Your task to perform on an android device: turn on improve location accuracy Image 0: 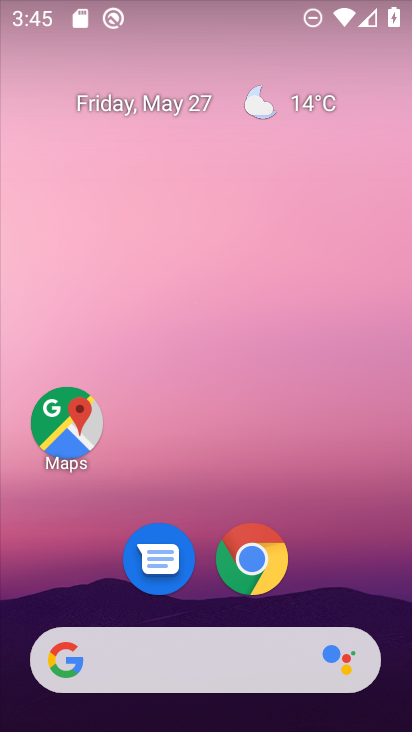
Step 0: press home button
Your task to perform on an android device: turn on improve location accuracy Image 1: 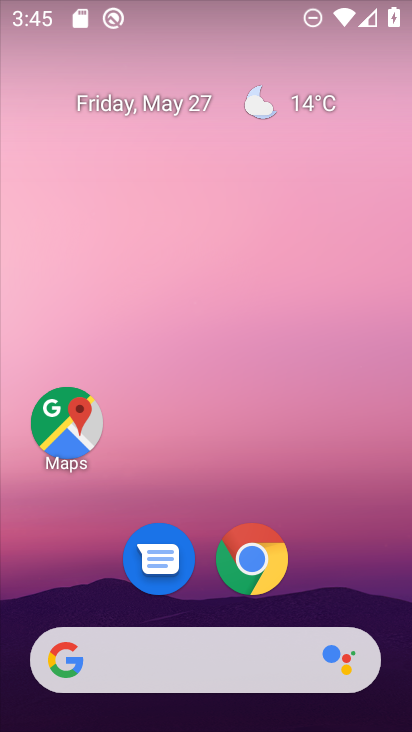
Step 1: drag from (339, 579) to (316, 52)
Your task to perform on an android device: turn on improve location accuracy Image 2: 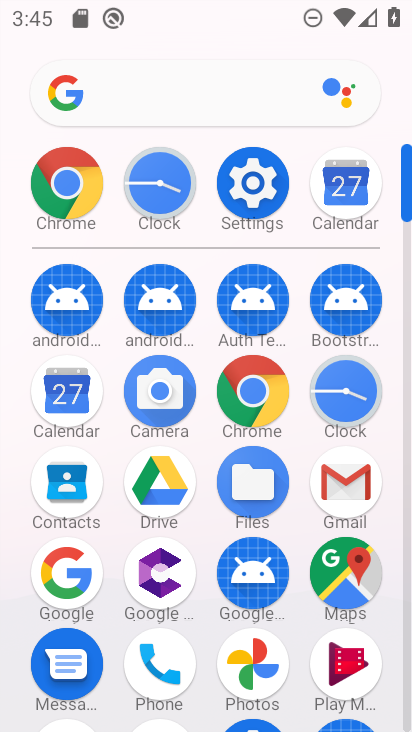
Step 2: click (239, 193)
Your task to perform on an android device: turn on improve location accuracy Image 3: 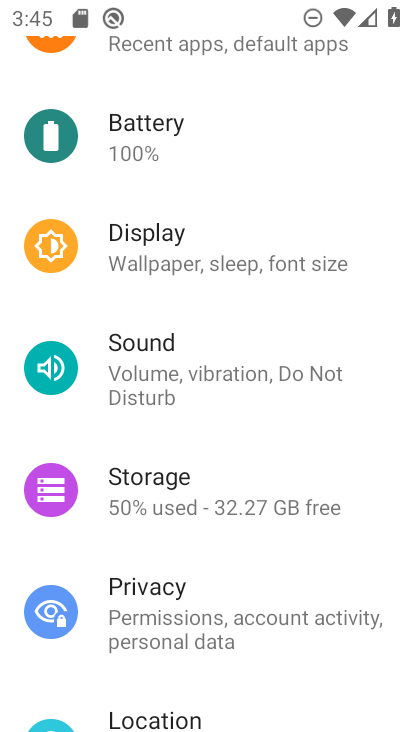
Step 3: drag from (229, 680) to (226, 304)
Your task to perform on an android device: turn on improve location accuracy Image 4: 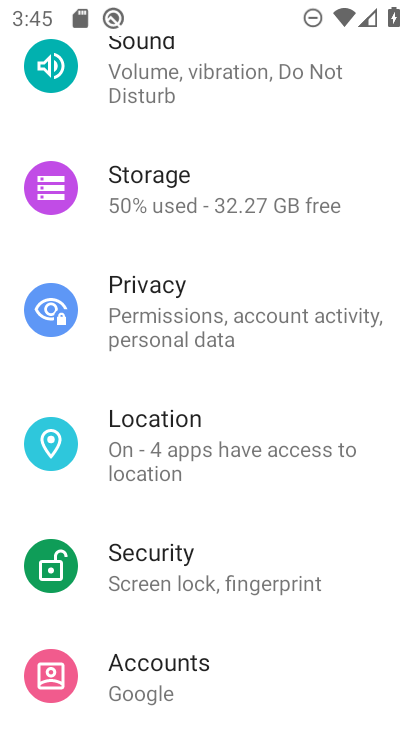
Step 4: click (211, 446)
Your task to perform on an android device: turn on improve location accuracy Image 5: 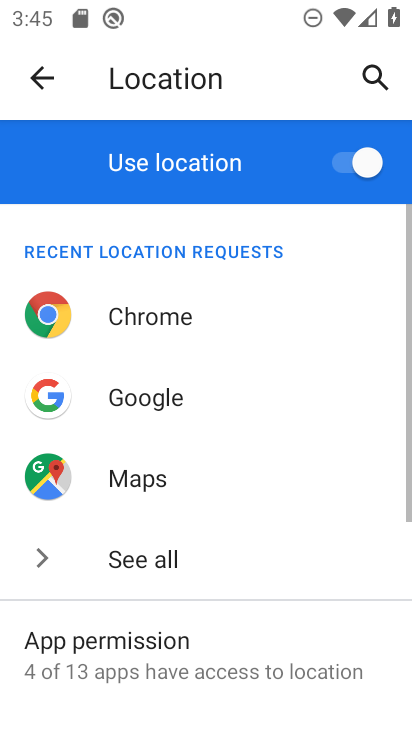
Step 5: drag from (311, 636) to (275, 320)
Your task to perform on an android device: turn on improve location accuracy Image 6: 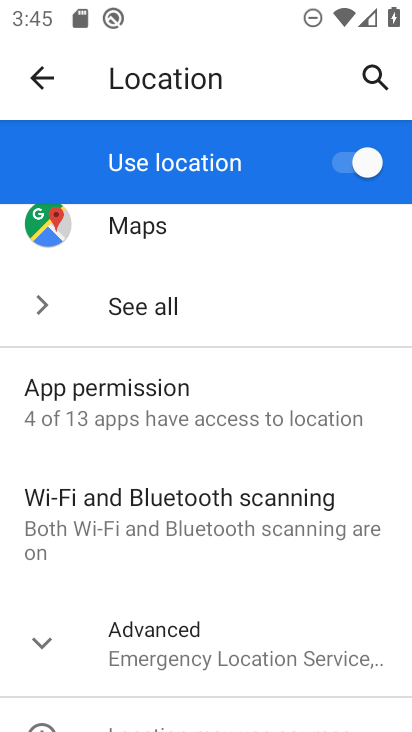
Step 6: drag from (269, 574) to (252, 310)
Your task to perform on an android device: turn on improve location accuracy Image 7: 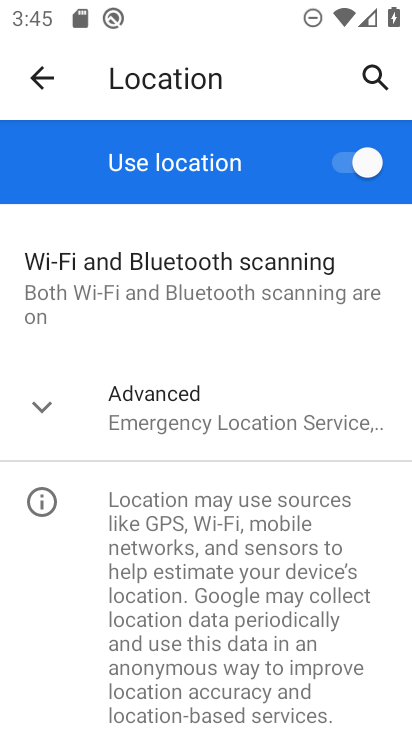
Step 7: click (170, 389)
Your task to perform on an android device: turn on improve location accuracy Image 8: 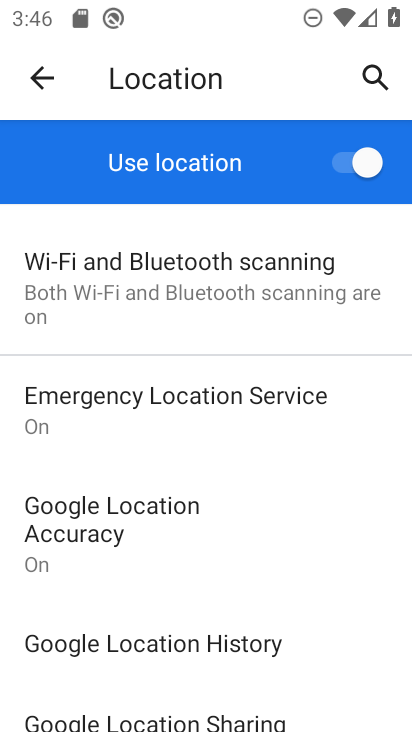
Step 8: drag from (313, 602) to (264, 352)
Your task to perform on an android device: turn on improve location accuracy Image 9: 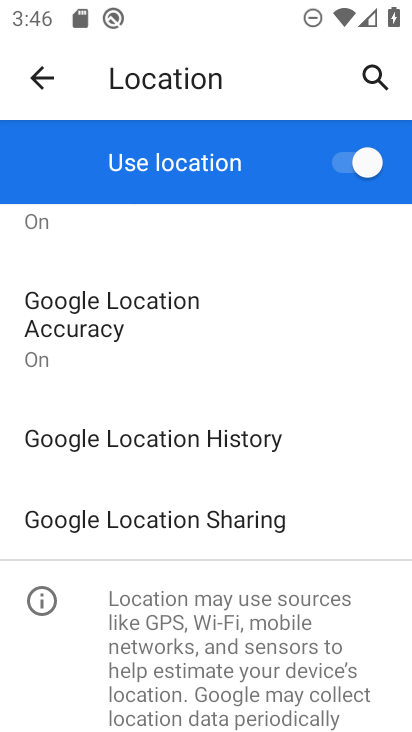
Step 9: click (182, 323)
Your task to perform on an android device: turn on improve location accuracy Image 10: 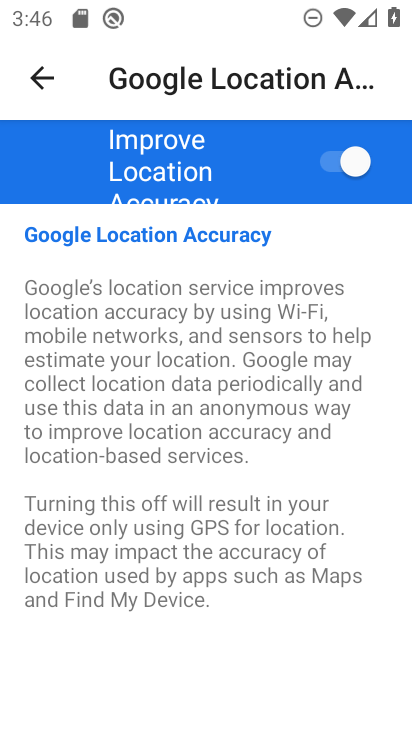
Step 10: task complete